Your task to perform on an android device: toggle show notifications on the lock screen Image 0: 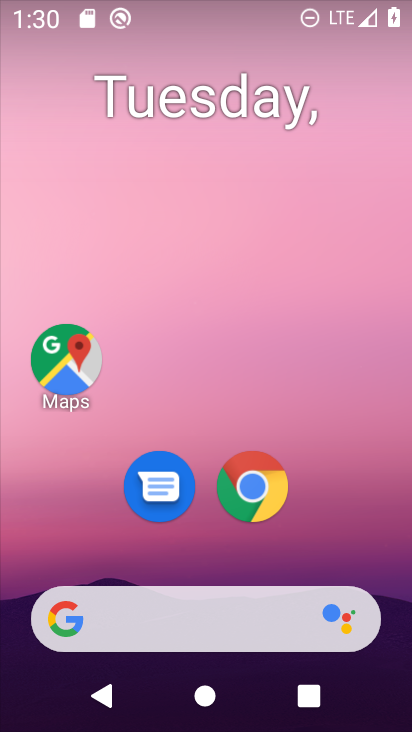
Step 0: drag from (231, 553) to (308, 26)
Your task to perform on an android device: toggle show notifications on the lock screen Image 1: 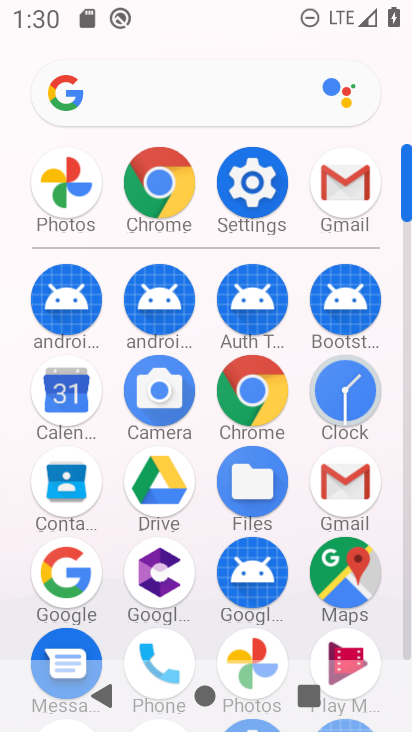
Step 1: drag from (188, 240) to (222, 0)
Your task to perform on an android device: toggle show notifications on the lock screen Image 2: 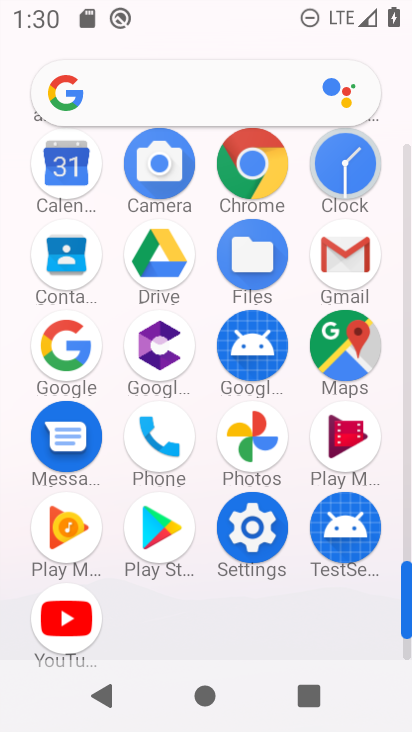
Step 2: click (264, 533)
Your task to perform on an android device: toggle show notifications on the lock screen Image 3: 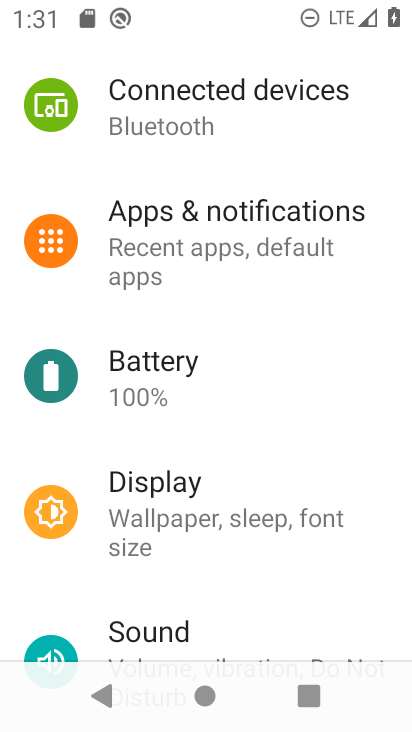
Step 3: click (167, 558)
Your task to perform on an android device: toggle show notifications on the lock screen Image 4: 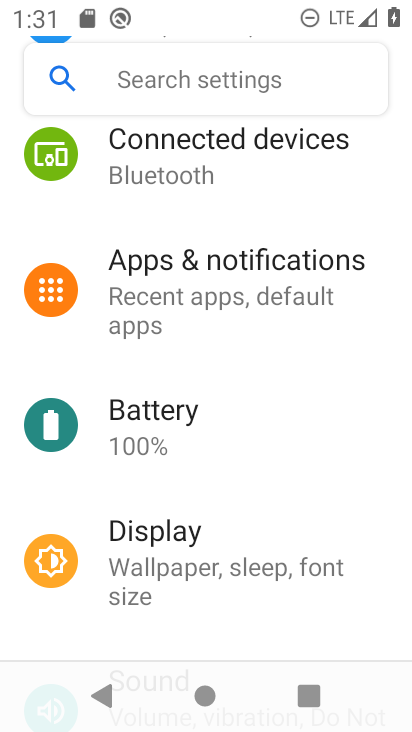
Step 4: click (234, 331)
Your task to perform on an android device: toggle show notifications on the lock screen Image 5: 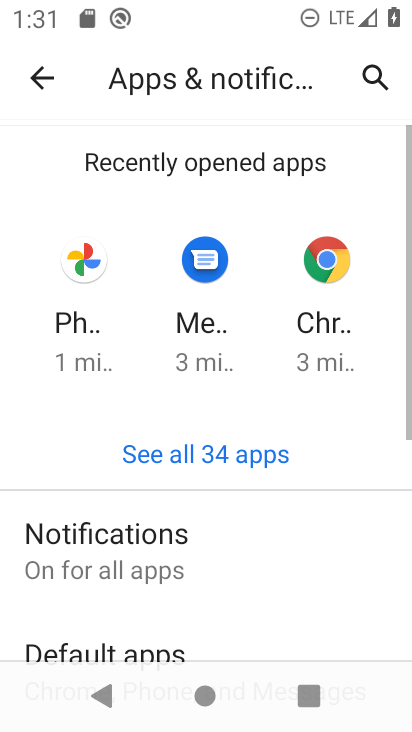
Step 5: click (149, 577)
Your task to perform on an android device: toggle show notifications on the lock screen Image 6: 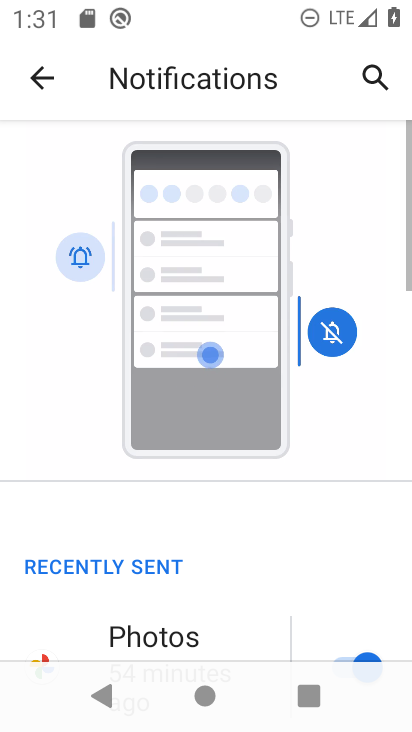
Step 6: drag from (149, 576) to (235, 112)
Your task to perform on an android device: toggle show notifications on the lock screen Image 7: 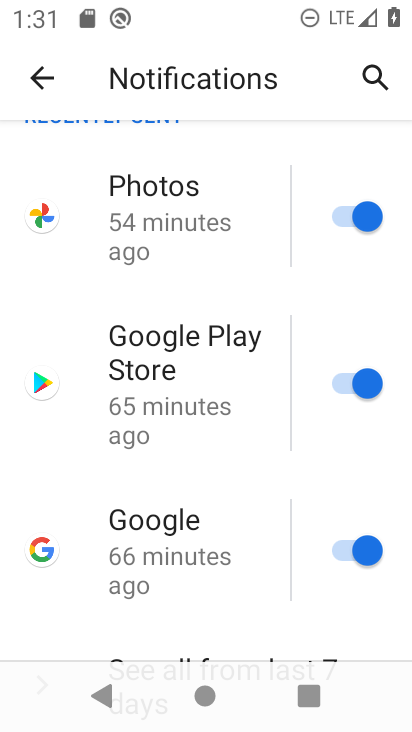
Step 7: drag from (218, 511) to (223, 127)
Your task to perform on an android device: toggle show notifications on the lock screen Image 8: 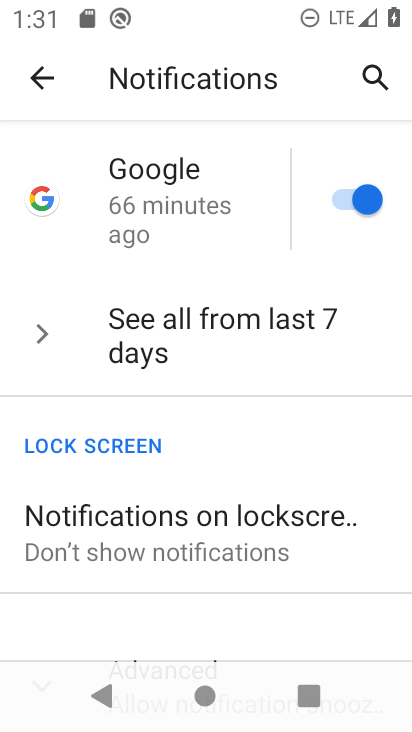
Step 8: click (194, 548)
Your task to perform on an android device: toggle show notifications on the lock screen Image 9: 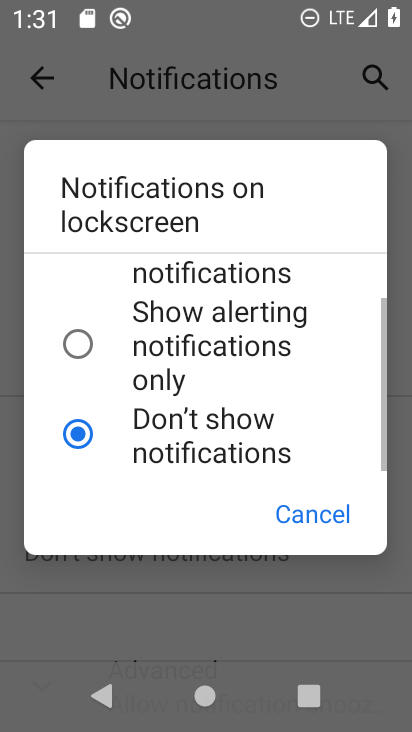
Step 9: drag from (150, 302) to (187, 465)
Your task to perform on an android device: toggle show notifications on the lock screen Image 10: 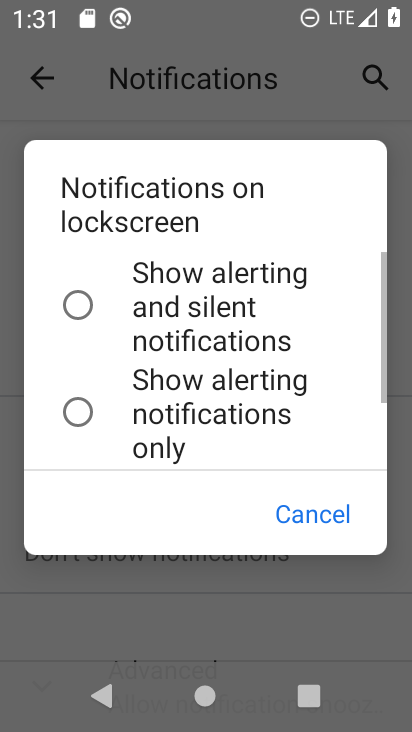
Step 10: click (140, 300)
Your task to perform on an android device: toggle show notifications on the lock screen Image 11: 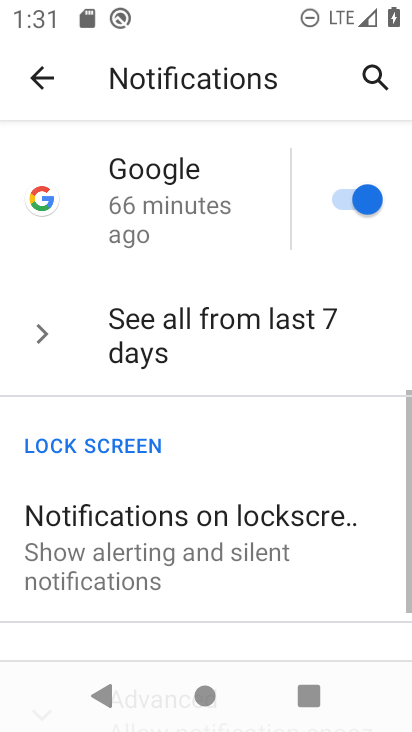
Step 11: task complete